Your task to perform on an android device: Open display settings Image 0: 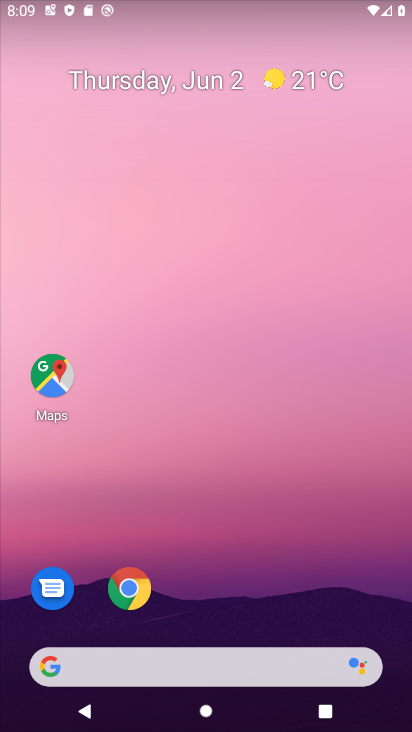
Step 0: drag from (226, 643) to (255, 74)
Your task to perform on an android device: Open display settings Image 1: 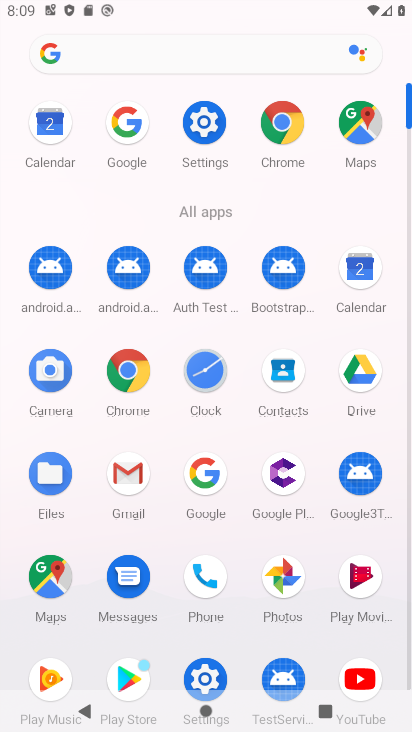
Step 1: click (211, 139)
Your task to perform on an android device: Open display settings Image 2: 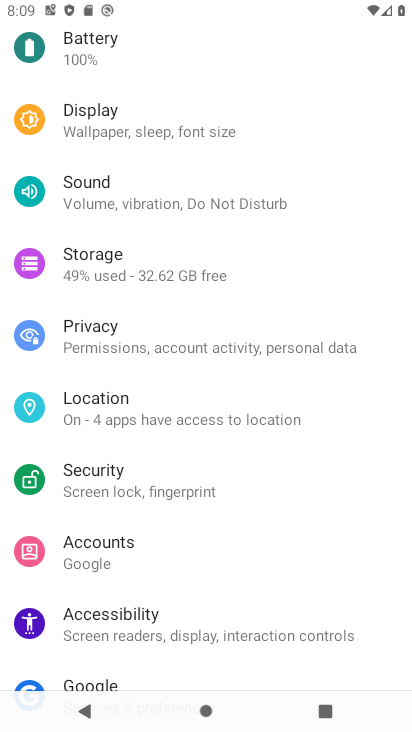
Step 2: click (140, 132)
Your task to perform on an android device: Open display settings Image 3: 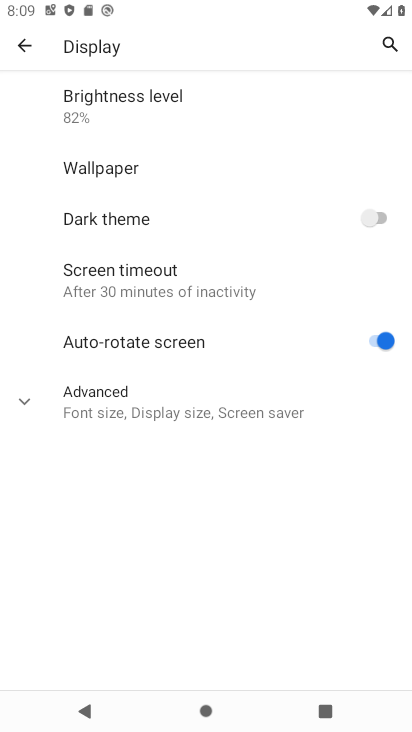
Step 3: task complete